Your task to perform on an android device: add a label to a message in the gmail app Image 0: 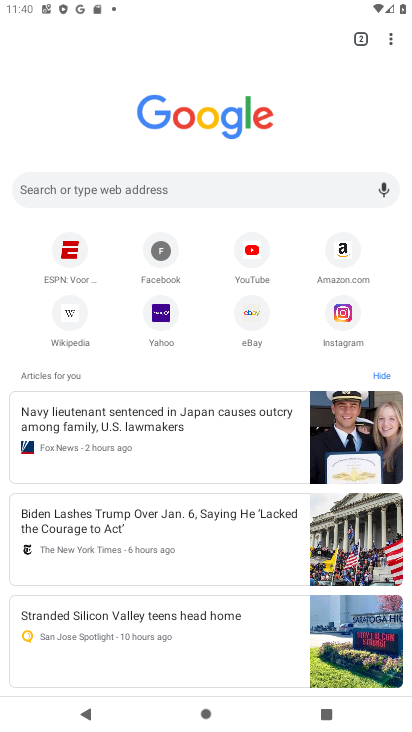
Step 0: press home button
Your task to perform on an android device: add a label to a message in the gmail app Image 1: 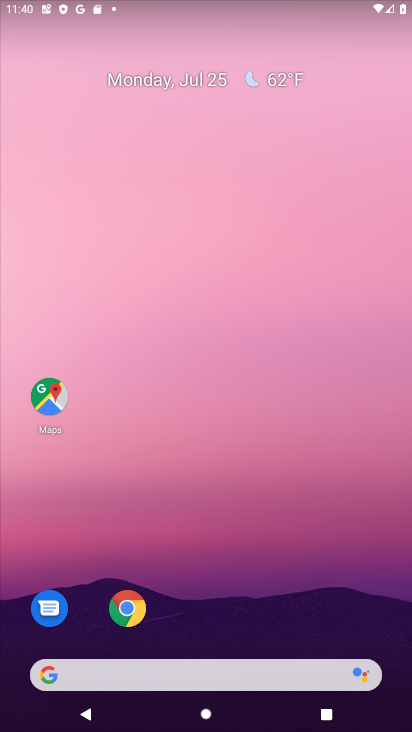
Step 1: drag from (260, 573) to (228, 310)
Your task to perform on an android device: add a label to a message in the gmail app Image 2: 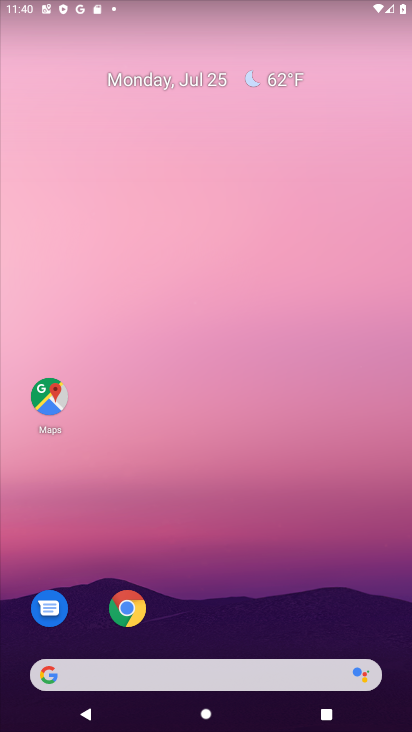
Step 2: drag from (281, 523) to (263, 309)
Your task to perform on an android device: add a label to a message in the gmail app Image 3: 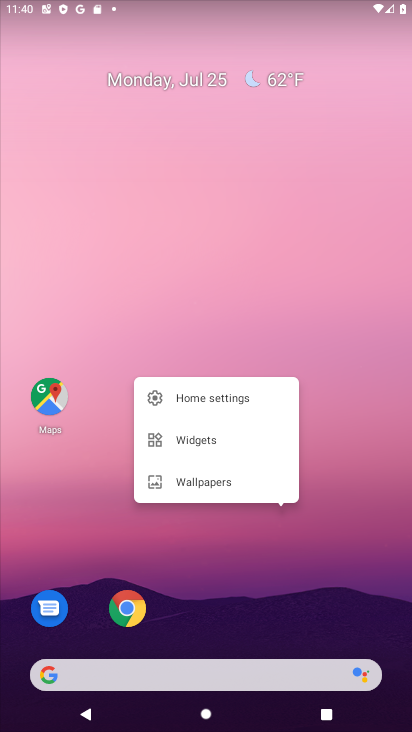
Step 3: click (349, 456)
Your task to perform on an android device: add a label to a message in the gmail app Image 4: 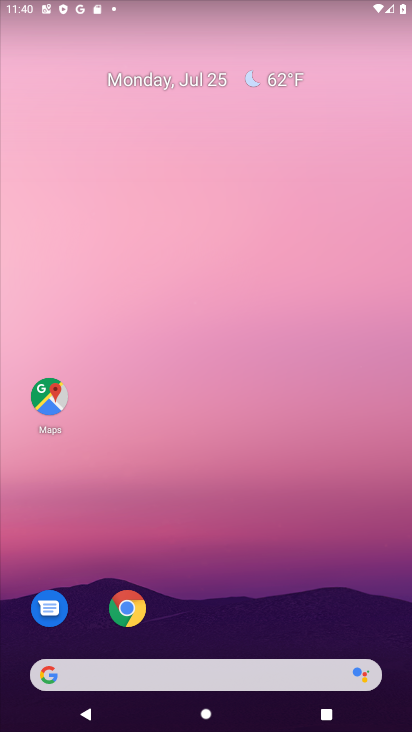
Step 4: drag from (310, 598) to (269, 260)
Your task to perform on an android device: add a label to a message in the gmail app Image 5: 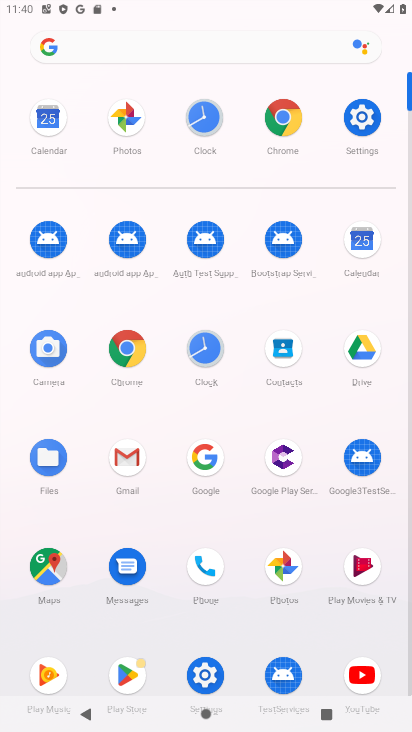
Step 5: click (127, 459)
Your task to perform on an android device: add a label to a message in the gmail app Image 6: 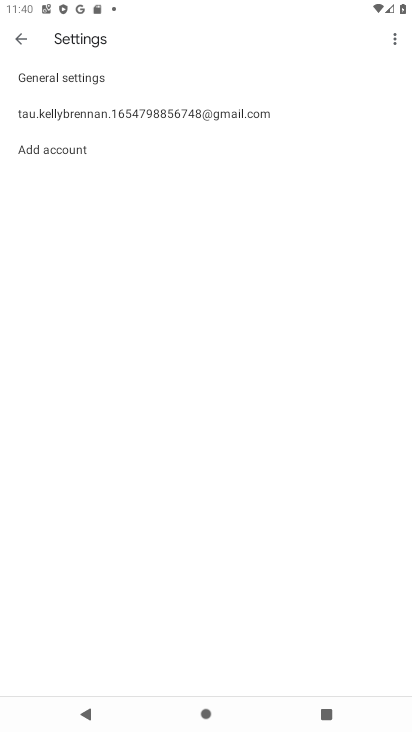
Step 6: click (18, 41)
Your task to perform on an android device: add a label to a message in the gmail app Image 7: 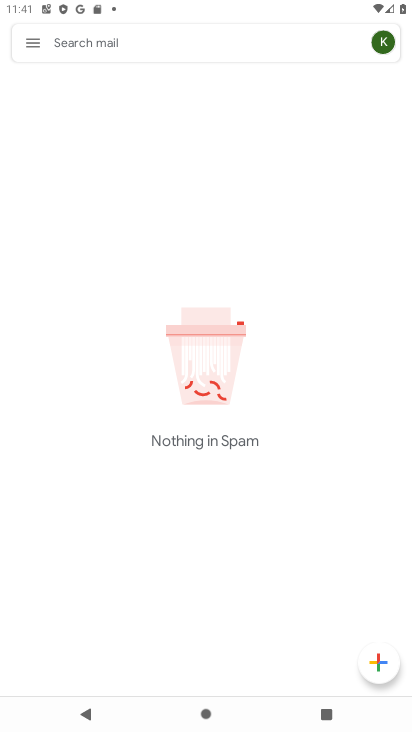
Step 7: task complete